Your task to perform on an android device: Open the calendar and show me this week's events? Image 0: 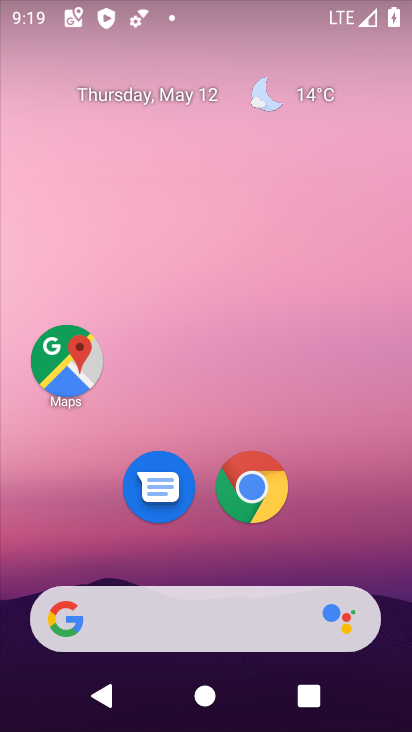
Step 0: press home button
Your task to perform on an android device: Open the calendar and show me this week's events? Image 1: 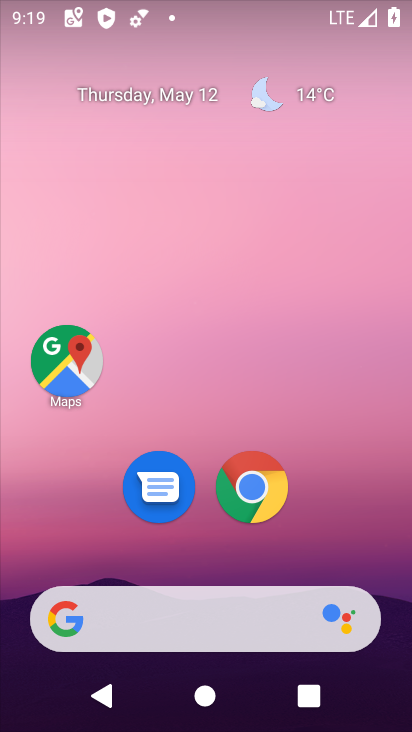
Step 1: drag from (33, 548) to (247, 189)
Your task to perform on an android device: Open the calendar and show me this week's events? Image 2: 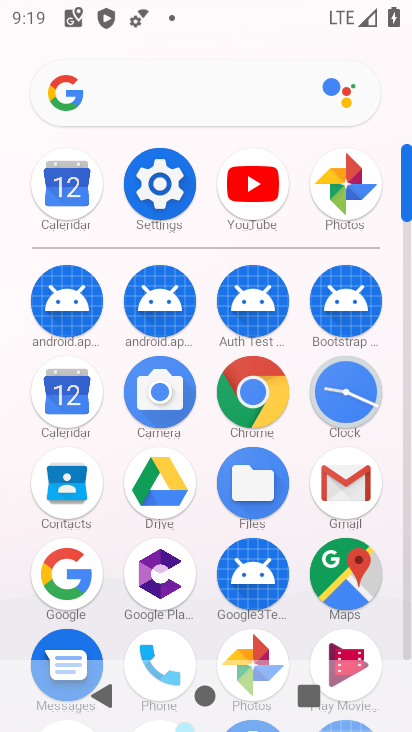
Step 2: click (66, 196)
Your task to perform on an android device: Open the calendar and show me this week's events? Image 3: 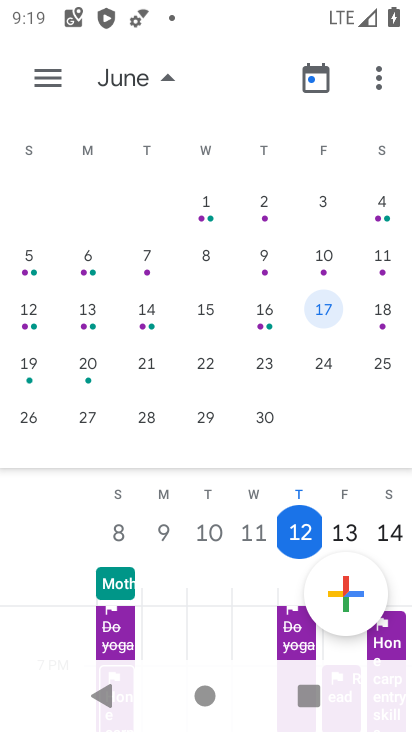
Step 3: drag from (66, 294) to (397, 205)
Your task to perform on an android device: Open the calendar and show me this week's events? Image 4: 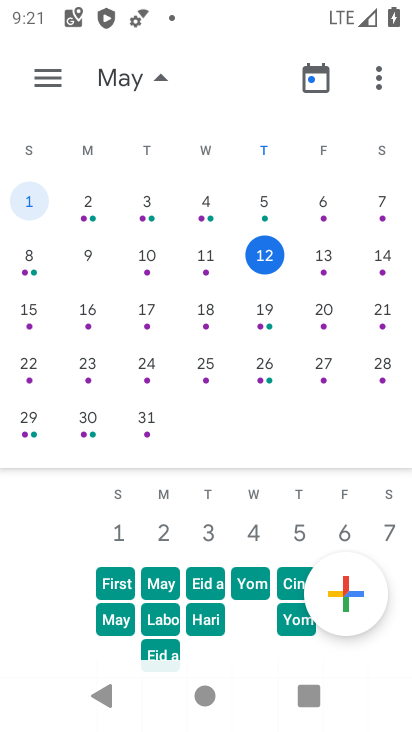
Step 4: click (315, 252)
Your task to perform on an android device: Open the calendar and show me this week's events? Image 5: 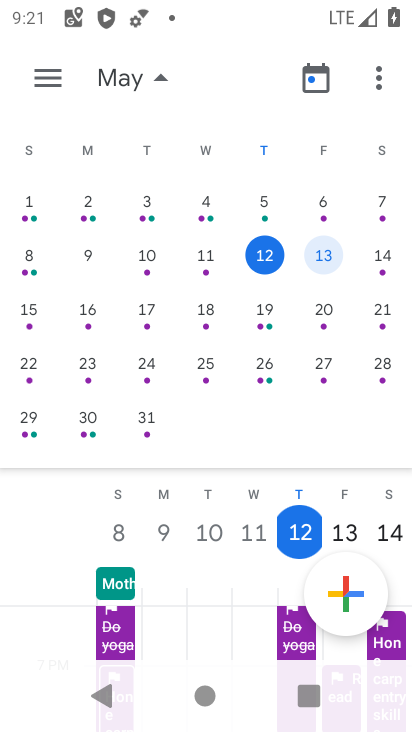
Step 5: task complete